Your task to perform on an android device: How much does a 3 bedroom apartment rent for in Los Angeles? Image 0: 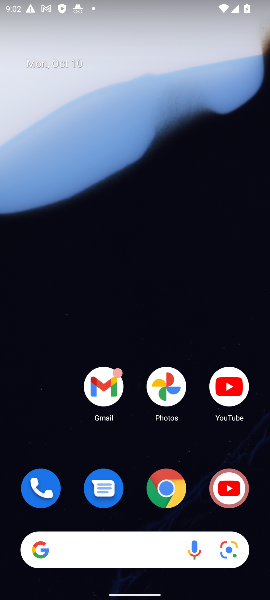
Step 0: drag from (191, 441) to (196, 40)
Your task to perform on an android device: How much does a 3 bedroom apartment rent for in Los Angeles? Image 1: 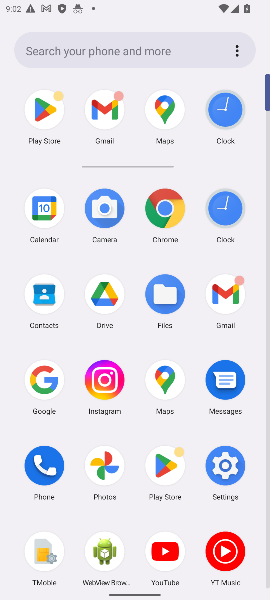
Step 1: click (168, 209)
Your task to perform on an android device: How much does a 3 bedroom apartment rent for in Los Angeles? Image 2: 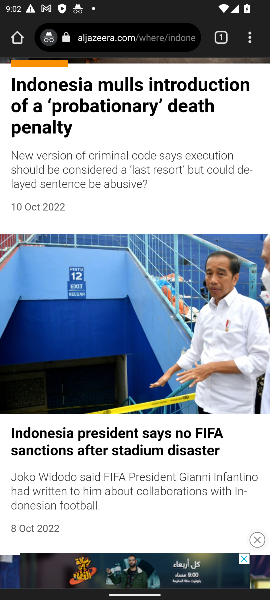
Step 2: click (157, 46)
Your task to perform on an android device: How much does a 3 bedroom apartment rent for in Los Angeles? Image 3: 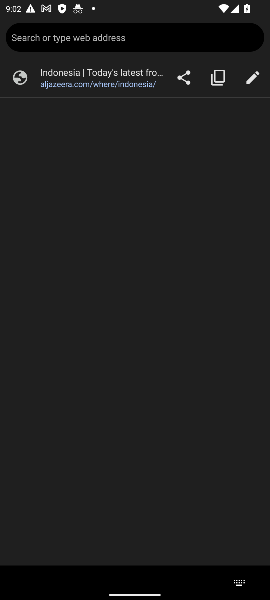
Step 3: type "How much does a 3 bedroom apartment rent for in Lose Angles"
Your task to perform on an android device: How much does a 3 bedroom apartment rent for in Los Angeles? Image 4: 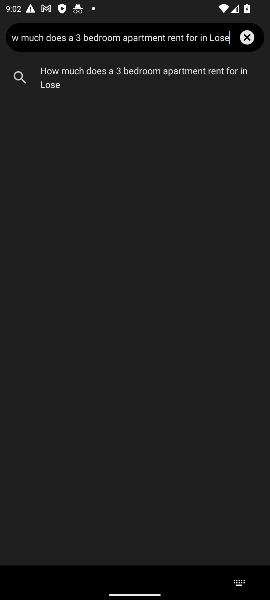
Step 4: type " Angeles?"
Your task to perform on an android device: How much does a 3 bedroom apartment rent for in Los Angeles? Image 5: 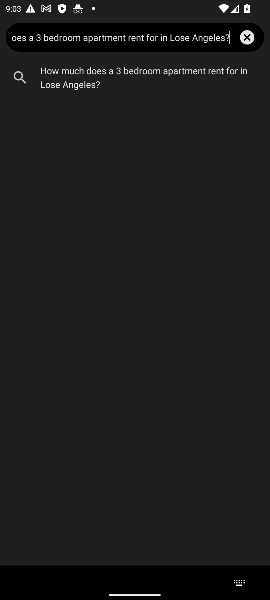
Step 5: press enter
Your task to perform on an android device: How much does a 3 bedroom apartment rent for in Los Angeles? Image 6: 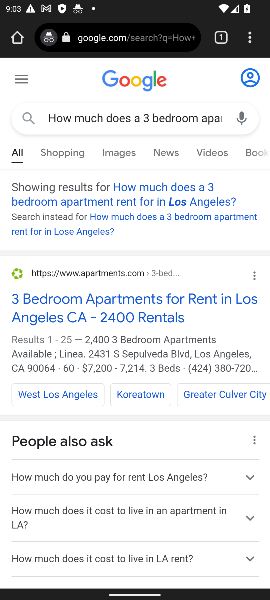
Step 6: click (143, 197)
Your task to perform on an android device: How much does a 3 bedroom apartment rent for in Los Angeles? Image 7: 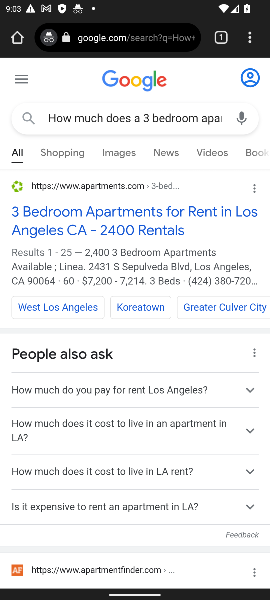
Step 7: task complete